Your task to perform on an android device: Go to Wikipedia Image 0: 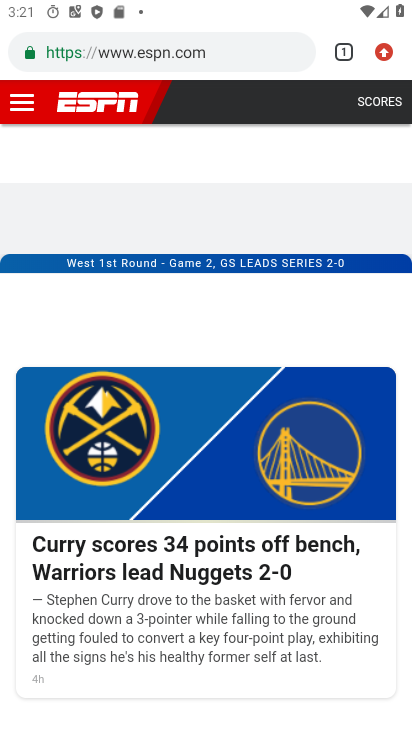
Step 0: click (256, 48)
Your task to perform on an android device: Go to Wikipedia Image 1: 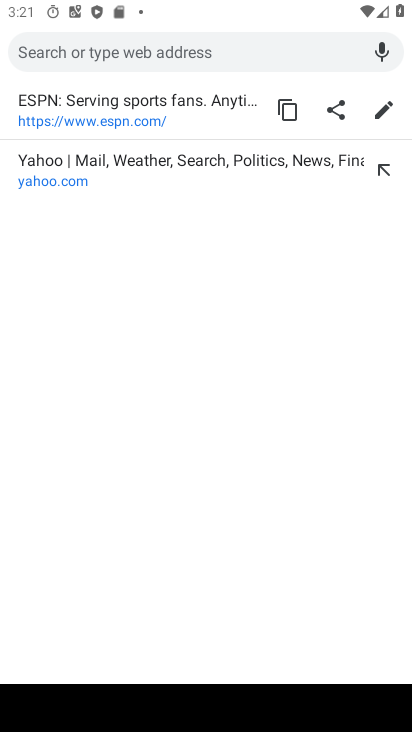
Step 1: type "wikipedia"
Your task to perform on an android device: Go to Wikipedia Image 2: 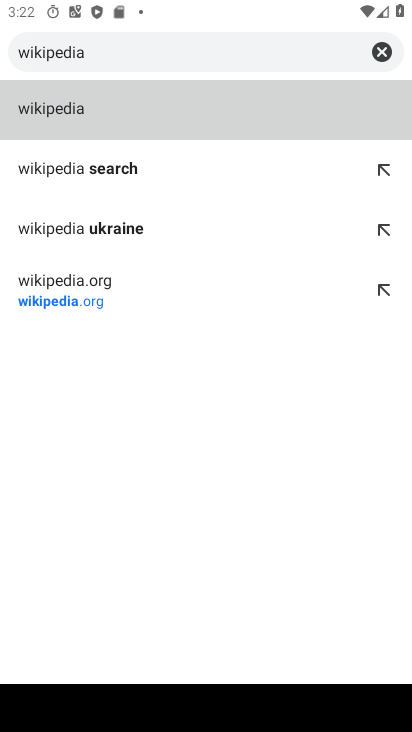
Step 2: click (34, 100)
Your task to perform on an android device: Go to Wikipedia Image 3: 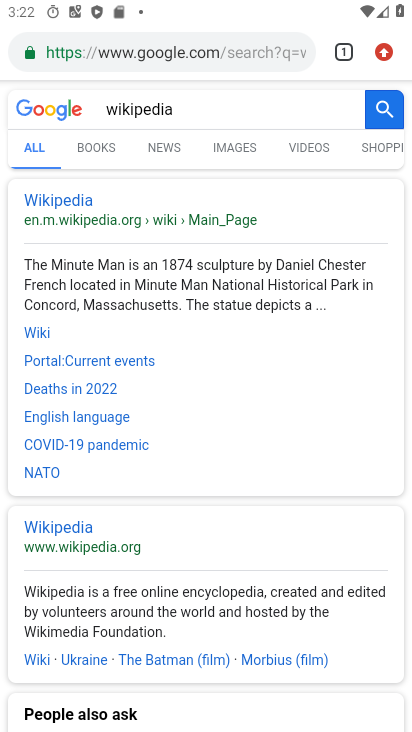
Step 3: task complete